Your task to perform on an android device: Open location settings Image 0: 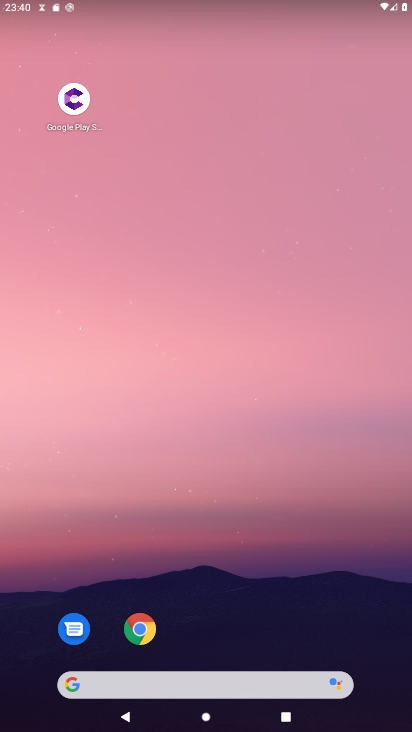
Step 0: drag from (228, 637) to (272, 281)
Your task to perform on an android device: Open location settings Image 1: 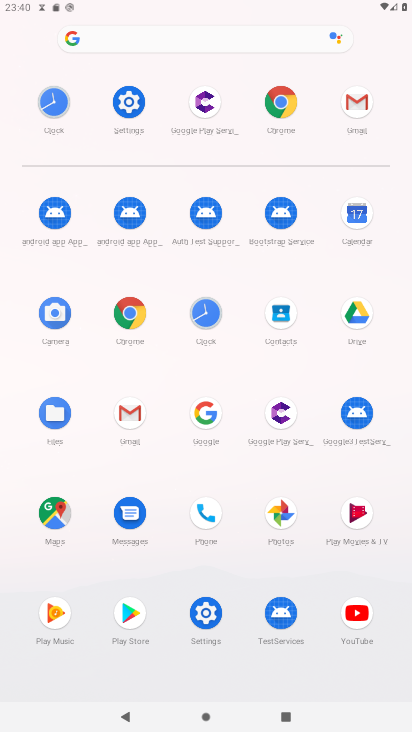
Step 1: click (124, 108)
Your task to perform on an android device: Open location settings Image 2: 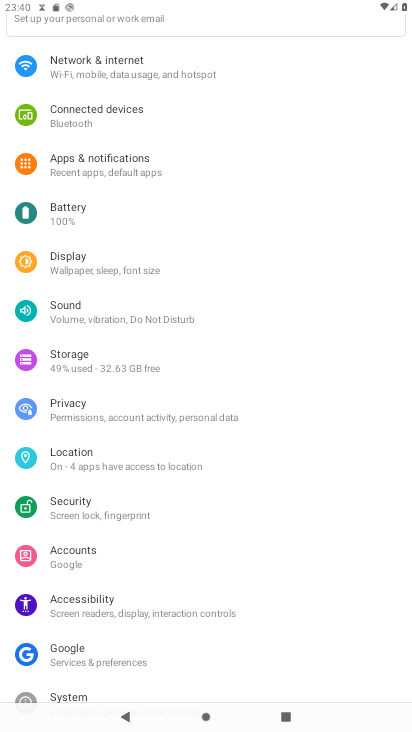
Step 2: click (104, 453)
Your task to perform on an android device: Open location settings Image 3: 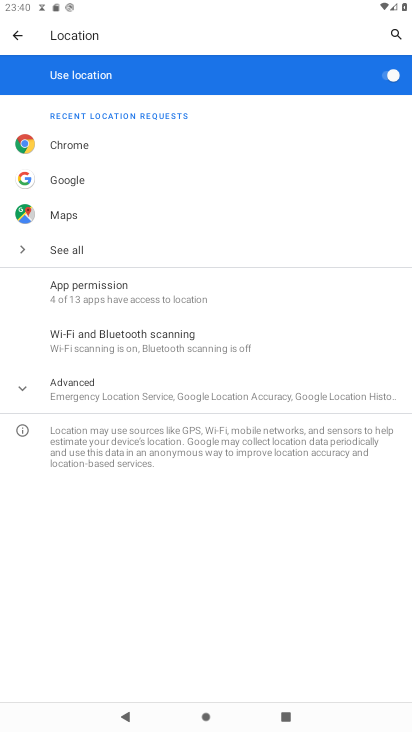
Step 3: click (198, 390)
Your task to perform on an android device: Open location settings Image 4: 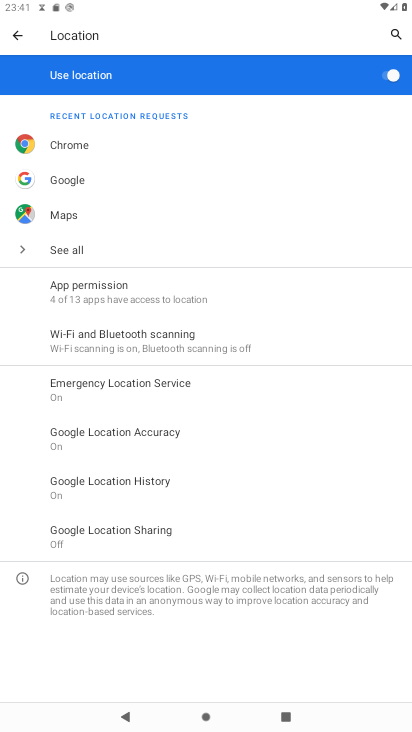
Step 4: task complete